Your task to perform on an android device: Open network settings Image 0: 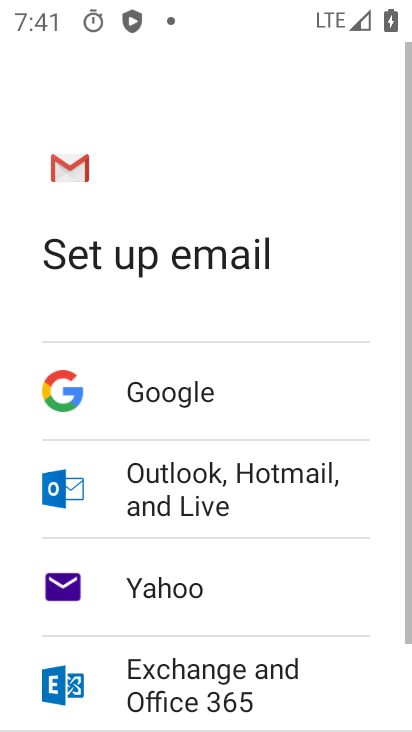
Step 0: press home button
Your task to perform on an android device: Open network settings Image 1: 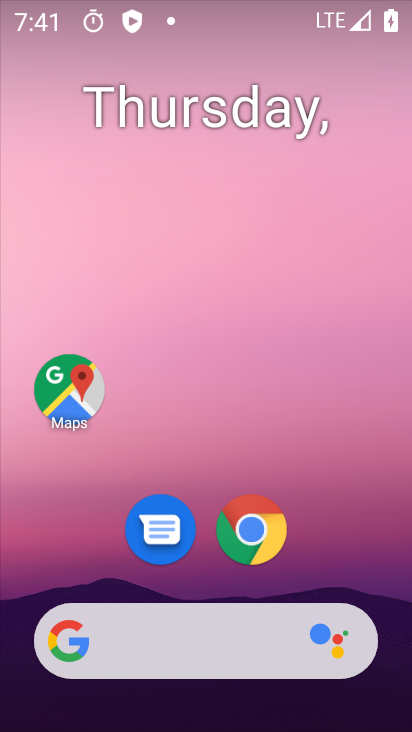
Step 1: drag from (378, 597) to (383, 130)
Your task to perform on an android device: Open network settings Image 2: 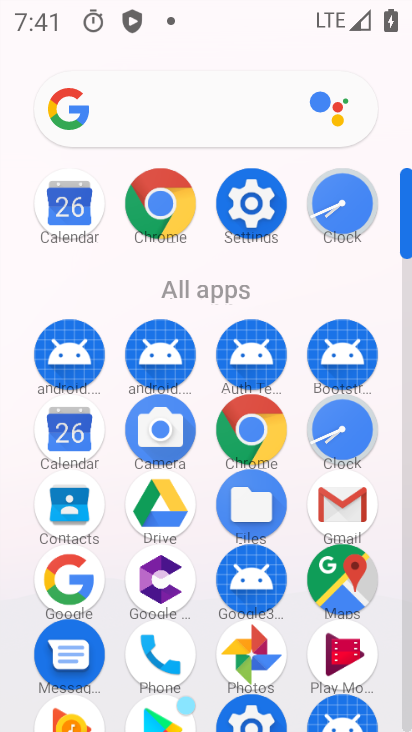
Step 2: click (246, 194)
Your task to perform on an android device: Open network settings Image 3: 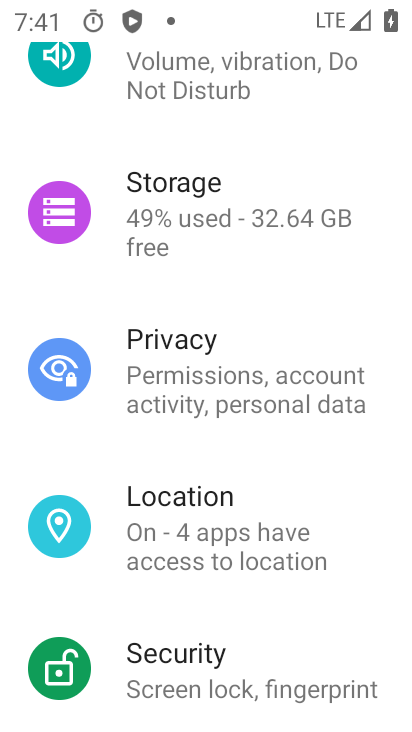
Step 3: drag from (368, 524) to (369, 400)
Your task to perform on an android device: Open network settings Image 4: 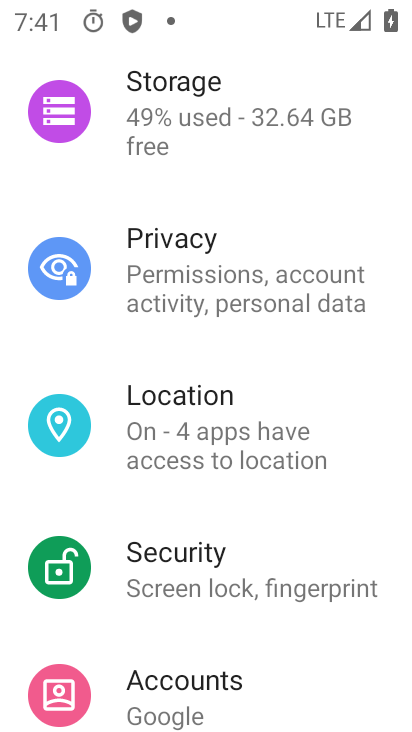
Step 4: drag from (375, 522) to (372, 380)
Your task to perform on an android device: Open network settings Image 5: 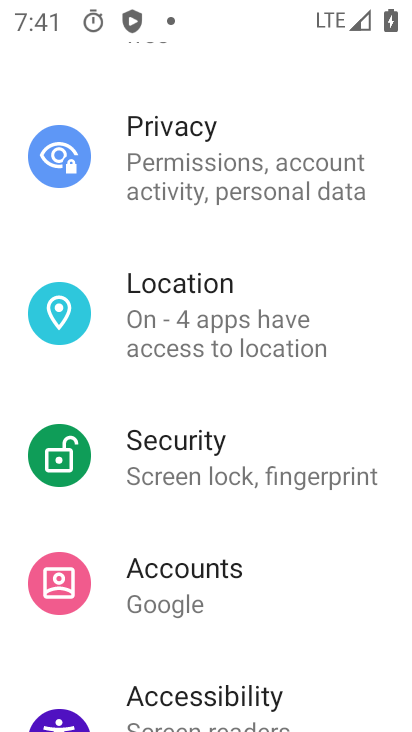
Step 5: drag from (364, 565) to (370, 397)
Your task to perform on an android device: Open network settings Image 6: 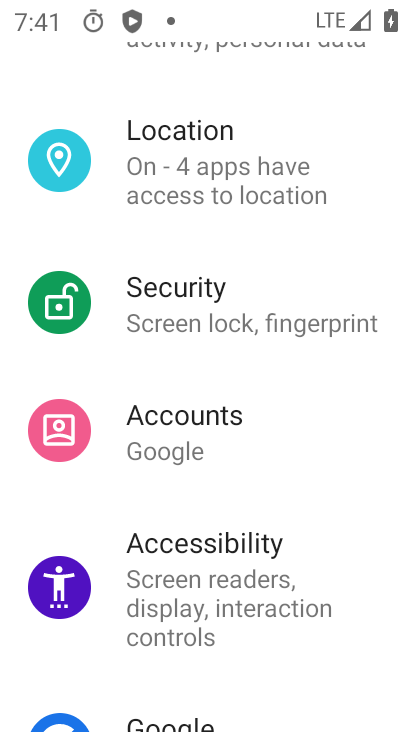
Step 6: drag from (347, 552) to (352, 437)
Your task to perform on an android device: Open network settings Image 7: 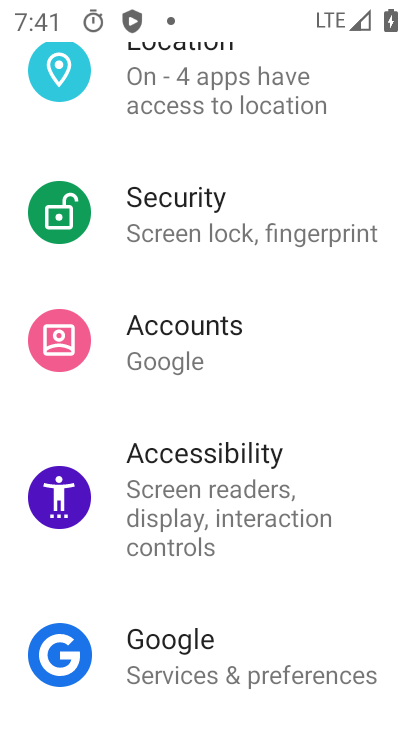
Step 7: drag from (355, 575) to (377, 420)
Your task to perform on an android device: Open network settings Image 8: 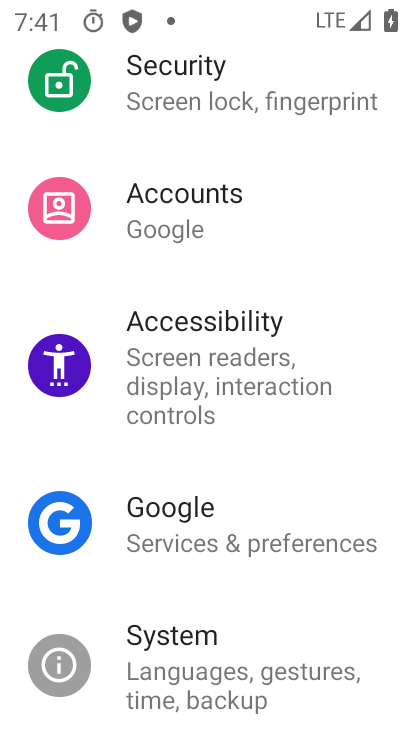
Step 8: drag from (379, 344) to (380, 454)
Your task to perform on an android device: Open network settings Image 9: 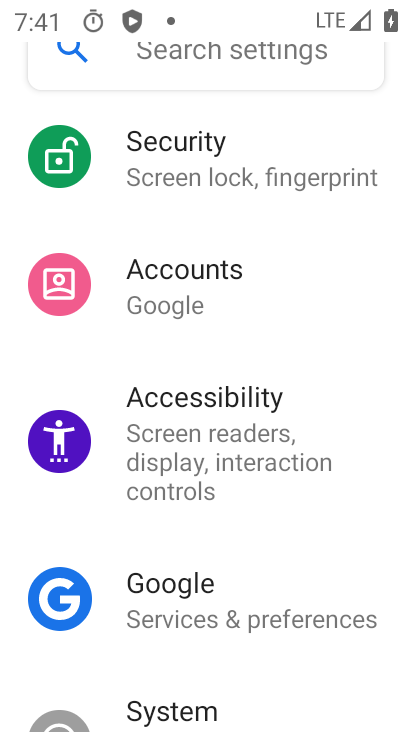
Step 9: drag from (383, 291) to (379, 457)
Your task to perform on an android device: Open network settings Image 10: 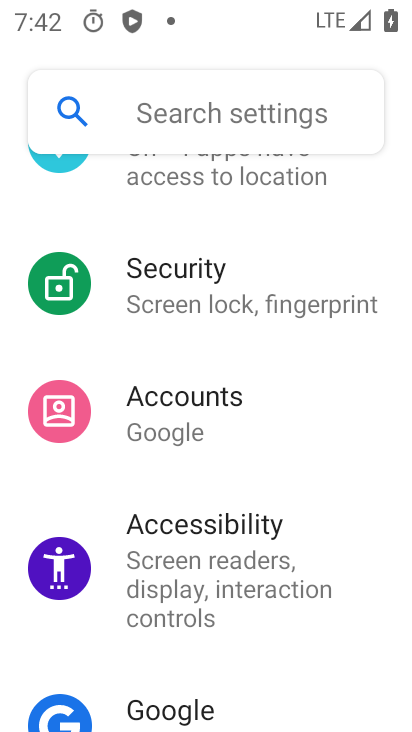
Step 10: drag from (383, 215) to (375, 401)
Your task to perform on an android device: Open network settings Image 11: 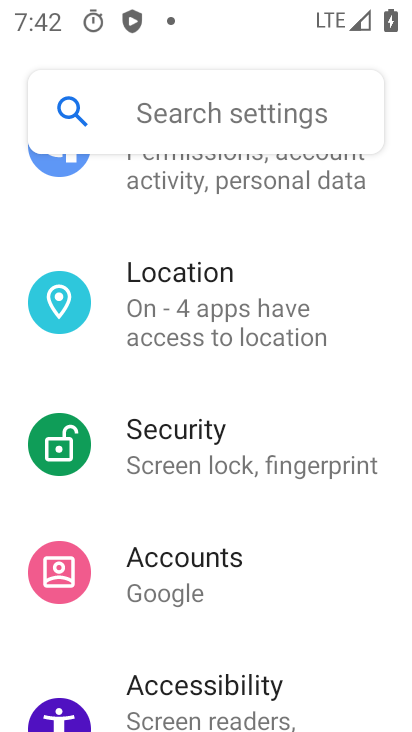
Step 11: drag from (382, 232) to (368, 376)
Your task to perform on an android device: Open network settings Image 12: 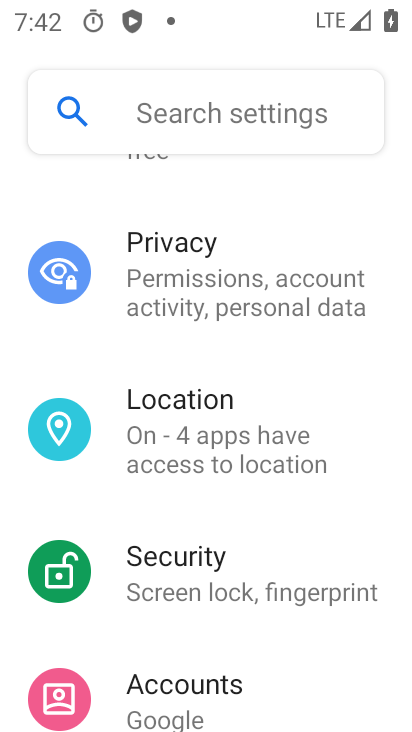
Step 12: drag from (369, 208) to (368, 365)
Your task to perform on an android device: Open network settings Image 13: 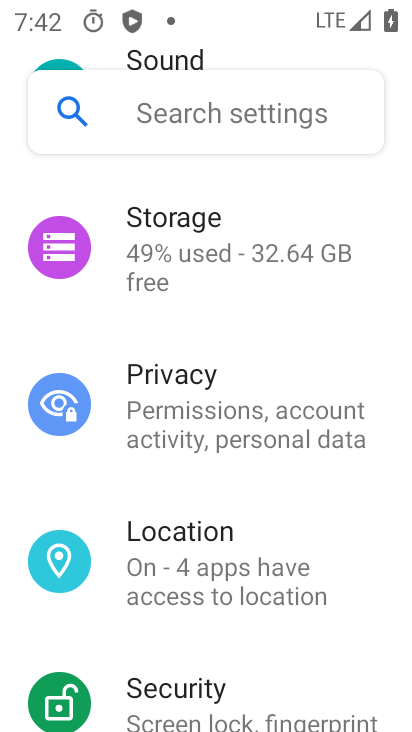
Step 13: drag from (377, 253) to (380, 338)
Your task to perform on an android device: Open network settings Image 14: 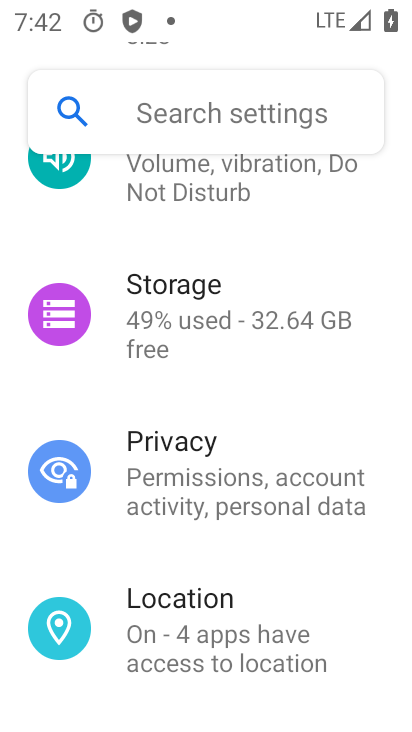
Step 14: drag from (366, 220) to (375, 347)
Your task to perform on an android device: Open network settings Image 15: 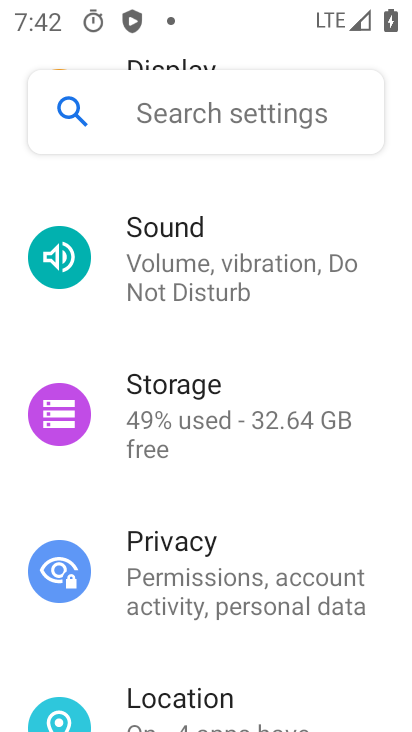
Step 15: drag from (375, 188) to (362, 402)
Your task to perform on an android device: Open network settings Image 16: 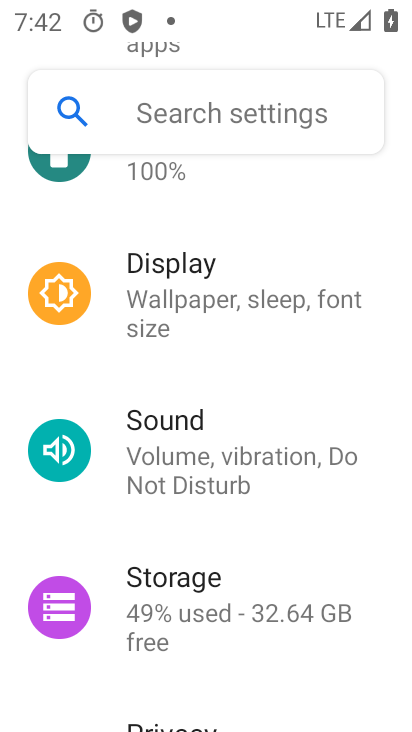
Step 16: drag from (351, 196) to (357, 386)
Your task to perform on an android device: Open network settings Image 17: 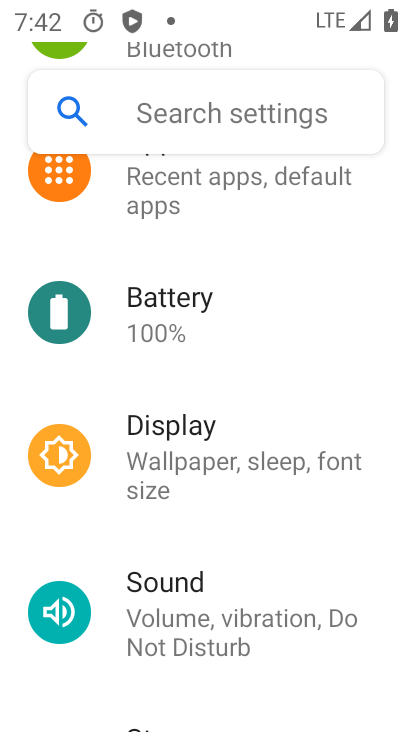
Step 17: drag from (378, 202) to (351, 357)
Your task to perform on an android device: Open network settings Image 18: 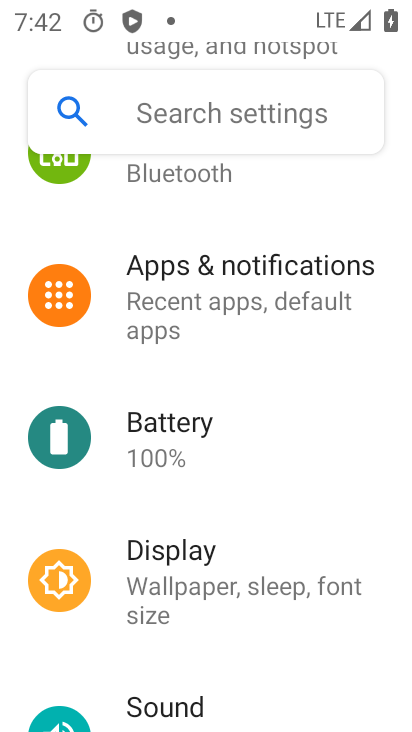
Step 18: drag from (355, 159) to (342, 330)
Your task to perform on an android device: Open network settings Image 19: 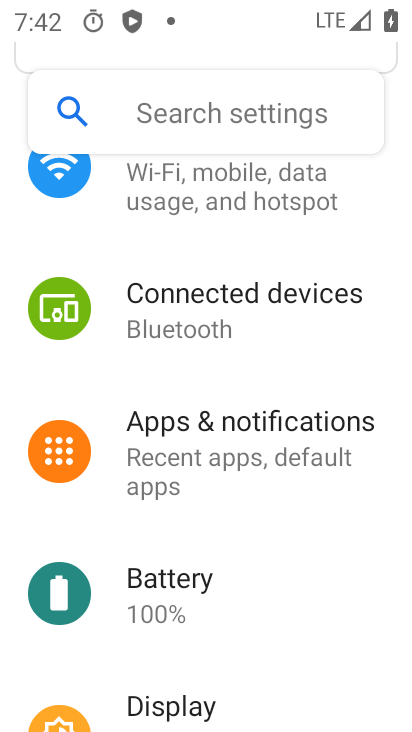
Step 19: drag from (368, 193) to (365, 336)
Your task to perform on an android device: Open network settings Image 20: 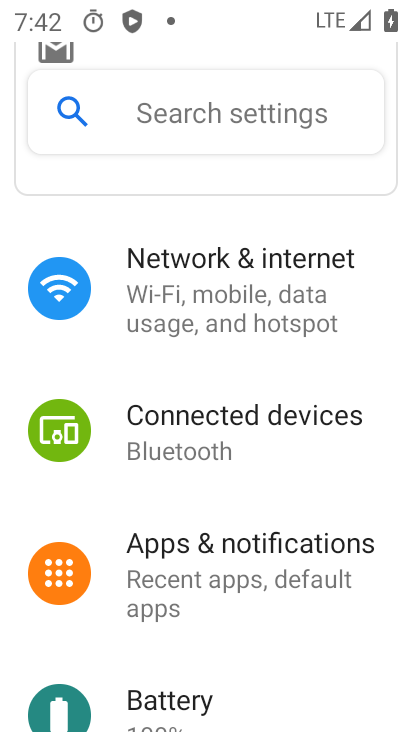
Step 20: click (289, 296)
Your task to perform on an android device: Open network settings Image 21: 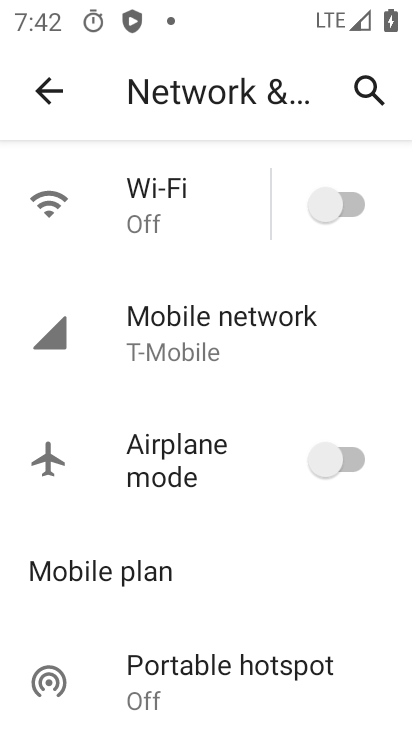
Step 21: task complete